Your task to perform on an android device: stop showing notifications on the lock screen Image 0: 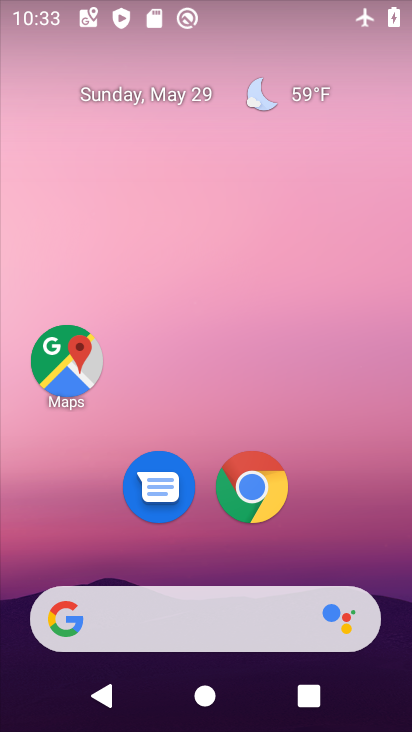
Step 0: drag from (384, 655) to (307, 70)
Your task to perform on an android device: stop showing notifications on the lock screen Image 1: 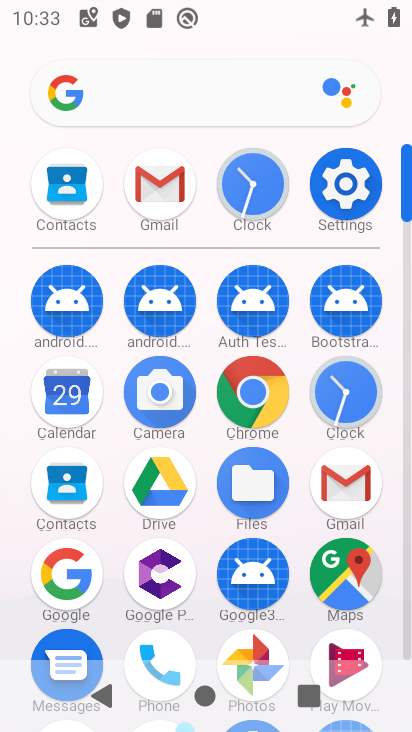
Step 1: click (352, 200)
Your task to perform on an android device: stop showing notifications on the lock screen Image 2: 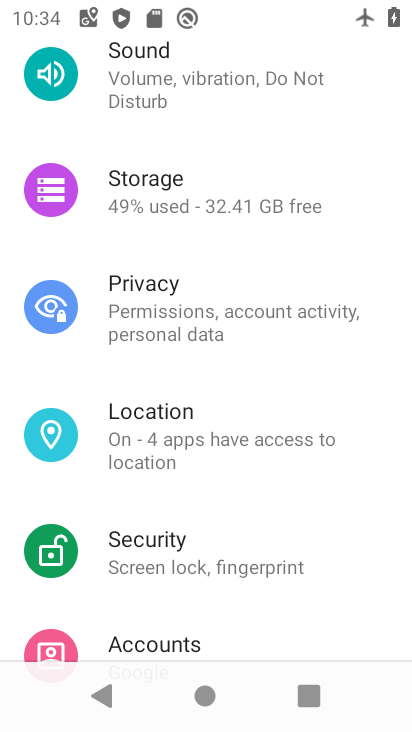
Step 2: drag from (357, 81) to (355, 622)
Your task to perform on an android device: stop showing notifications on the lock screen Image 3: 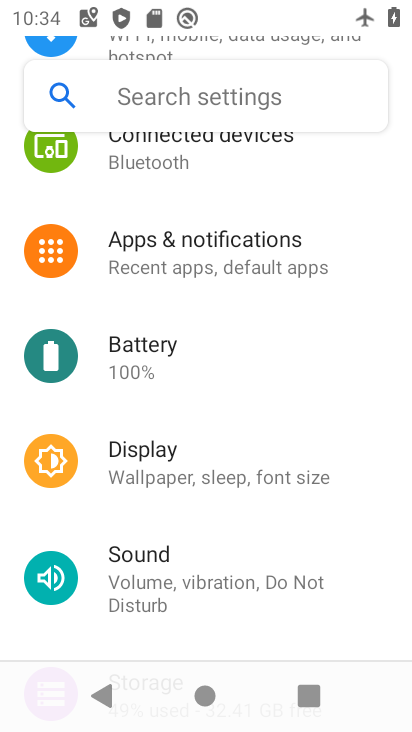
Step 3: drag from (328, 170) to (359, 596)
Your task to perform on an android device: stop showing notifications on the lock screen Image 4: 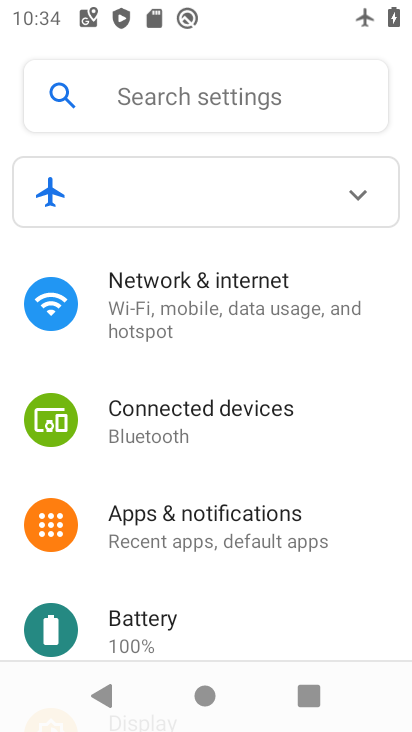
Step 4: click (204, 305)
Your task to perform on an android device: stop showing notifications on the lock screen Image 5: 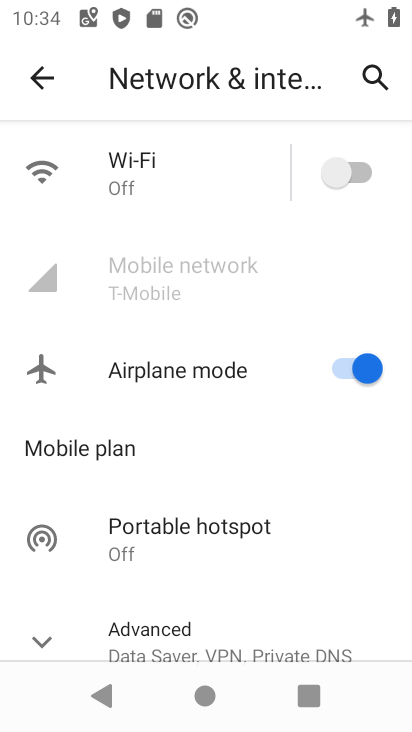
Step 5: click (371, 169)
Your task to perform on an android device: stop showing notifications on the lock screen Image 6: 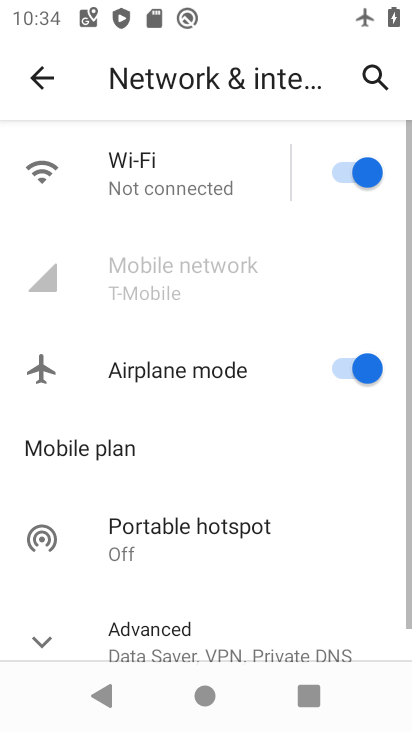
Step 6: click (341, 366)
Your task to perform on an android device: stop showing notifications on the lock screen Image 7: 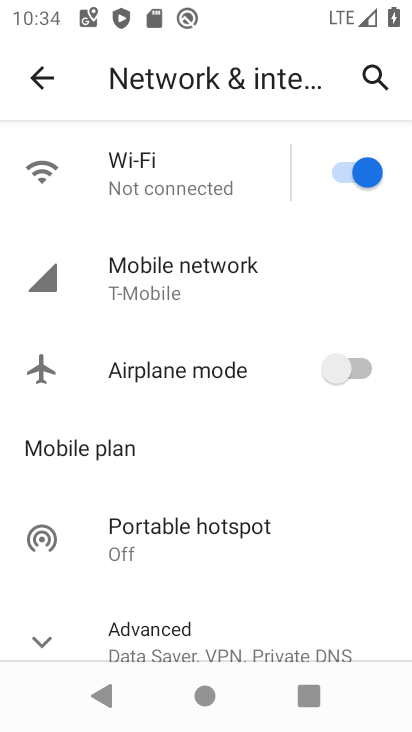
Step 7: click (47, 77)
Your task to perform on an android device: stop showing notifications on the lock screen Image 8: 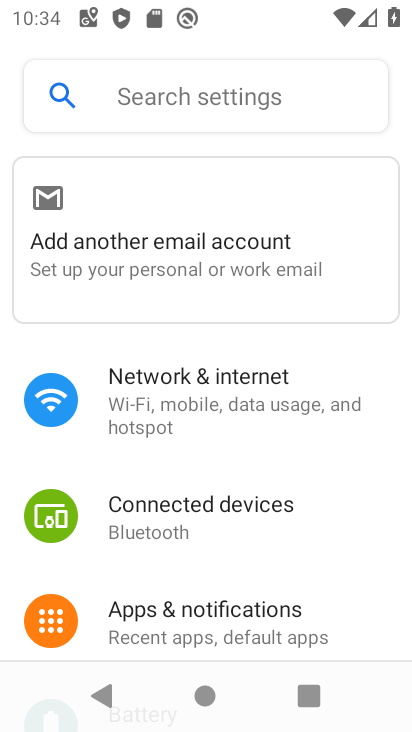
Step 8: click (168, 615)
Your task to perform on an android device: stop showing notifications on the lock screen Image 9: 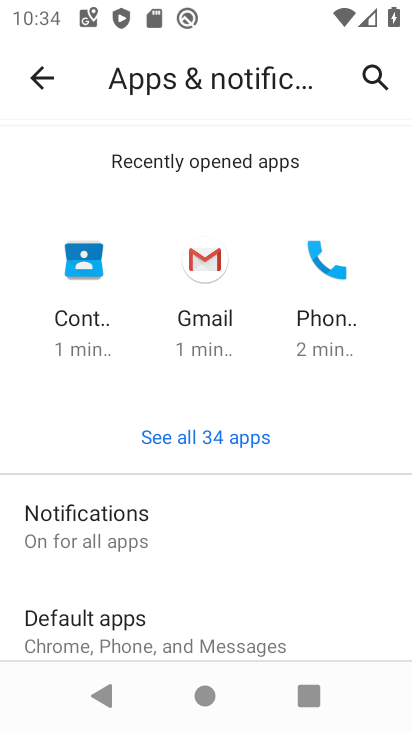
Step 9: click (75, 521)
Your task to perform on an android device: stop showing notifications on the lock screen Image 10: 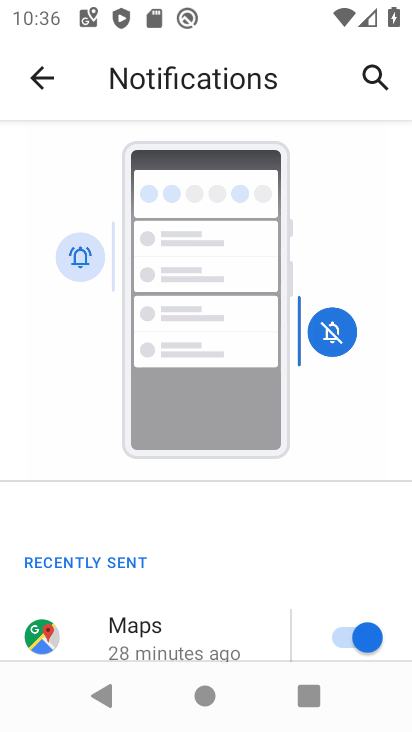
Step 10: drag from (250, 645) to (220, 164)
Your task to perform on an android device: stop showing notifications on the lock screen Image 11: 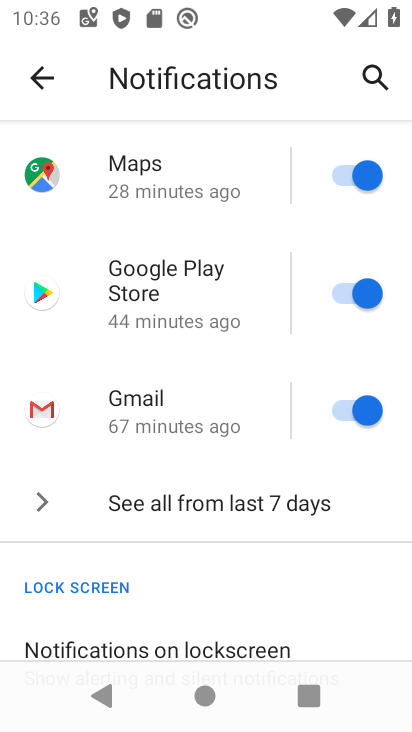
Step 11: drag from (268, 606) to (255, 223)
Your task to perform on an android device: stop showing notifications on the lock screen Image 12: 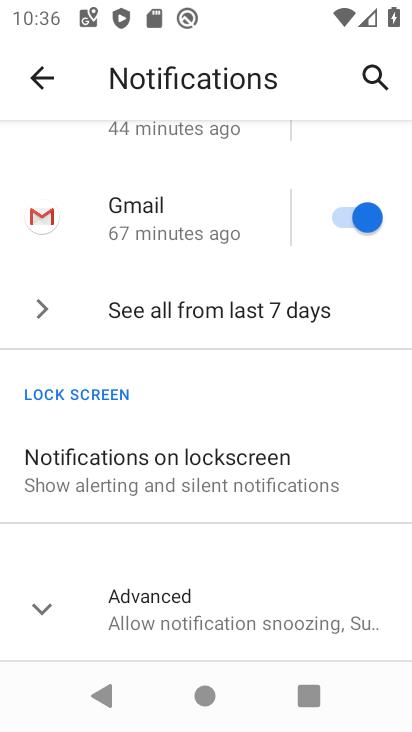
Step 12: click (131, 475)
Your task to perform on an android device: stop showing notifications on the lock screen Image 13: 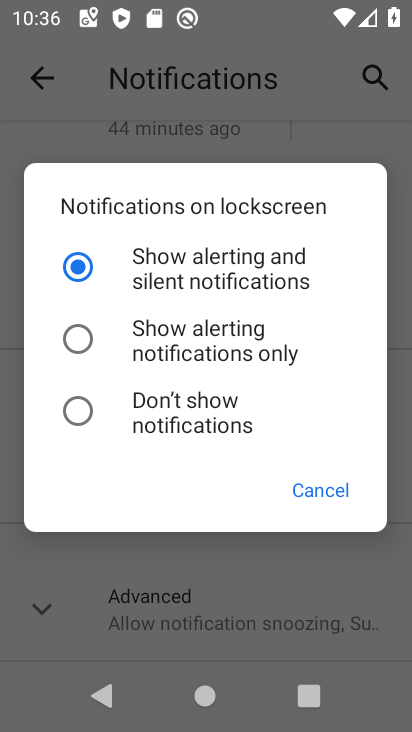
Step 13: click (75, 417)
Your task to perform on an android device: stop showing notifications on the lock screen Image 14: 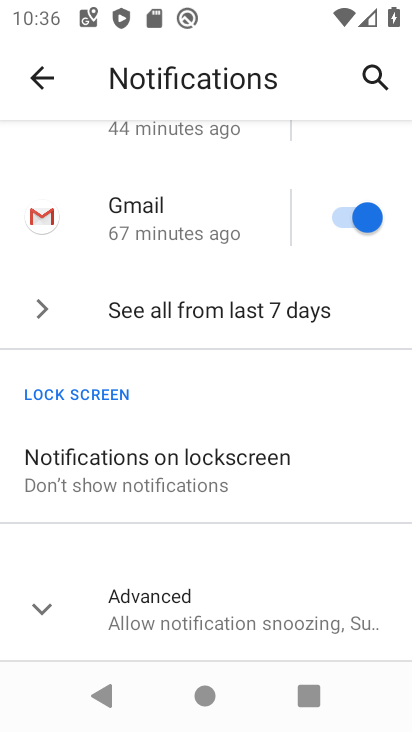
Step 14: task complete